Your task to perform on an android device: Open Android settings Image 0: 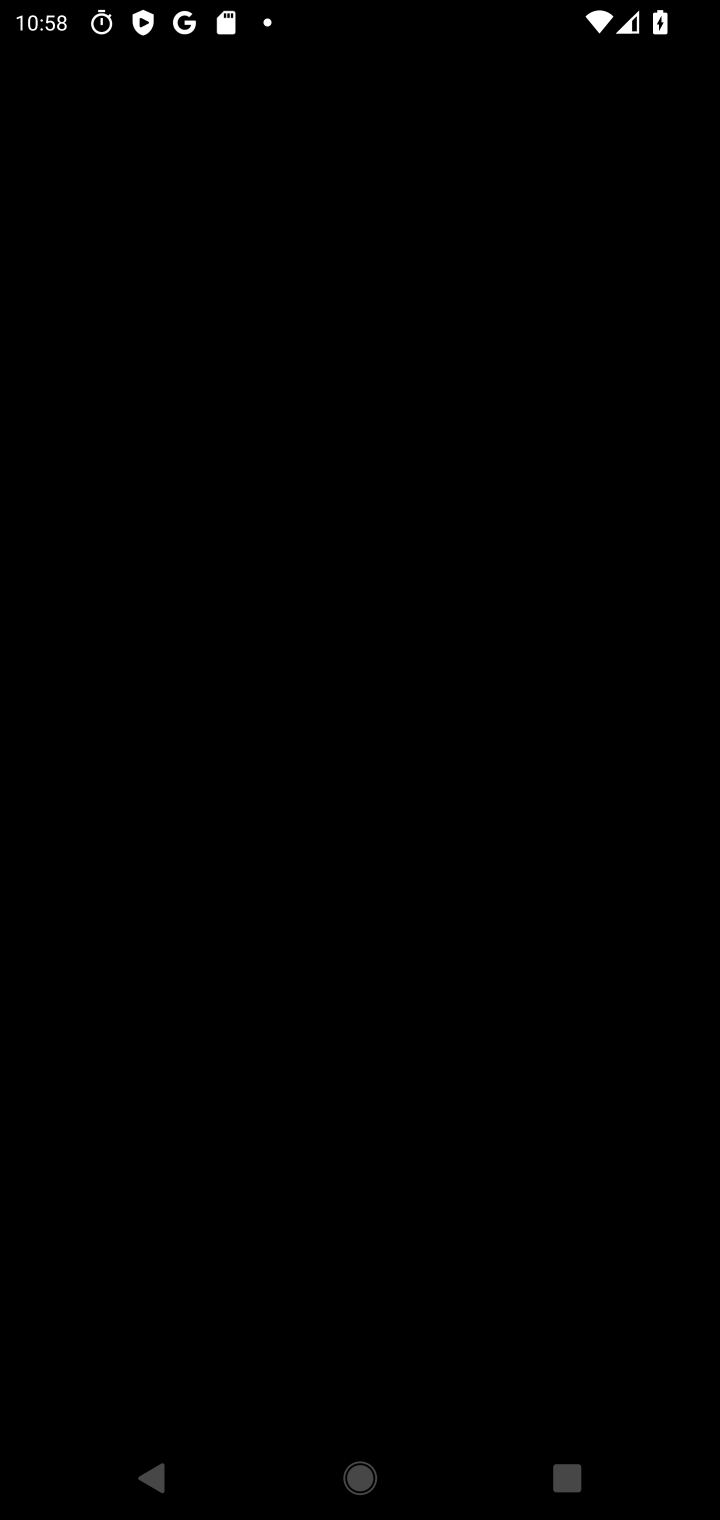
Step 0: press home button
Your task to perform on an android device: Open Android settings Image 1: 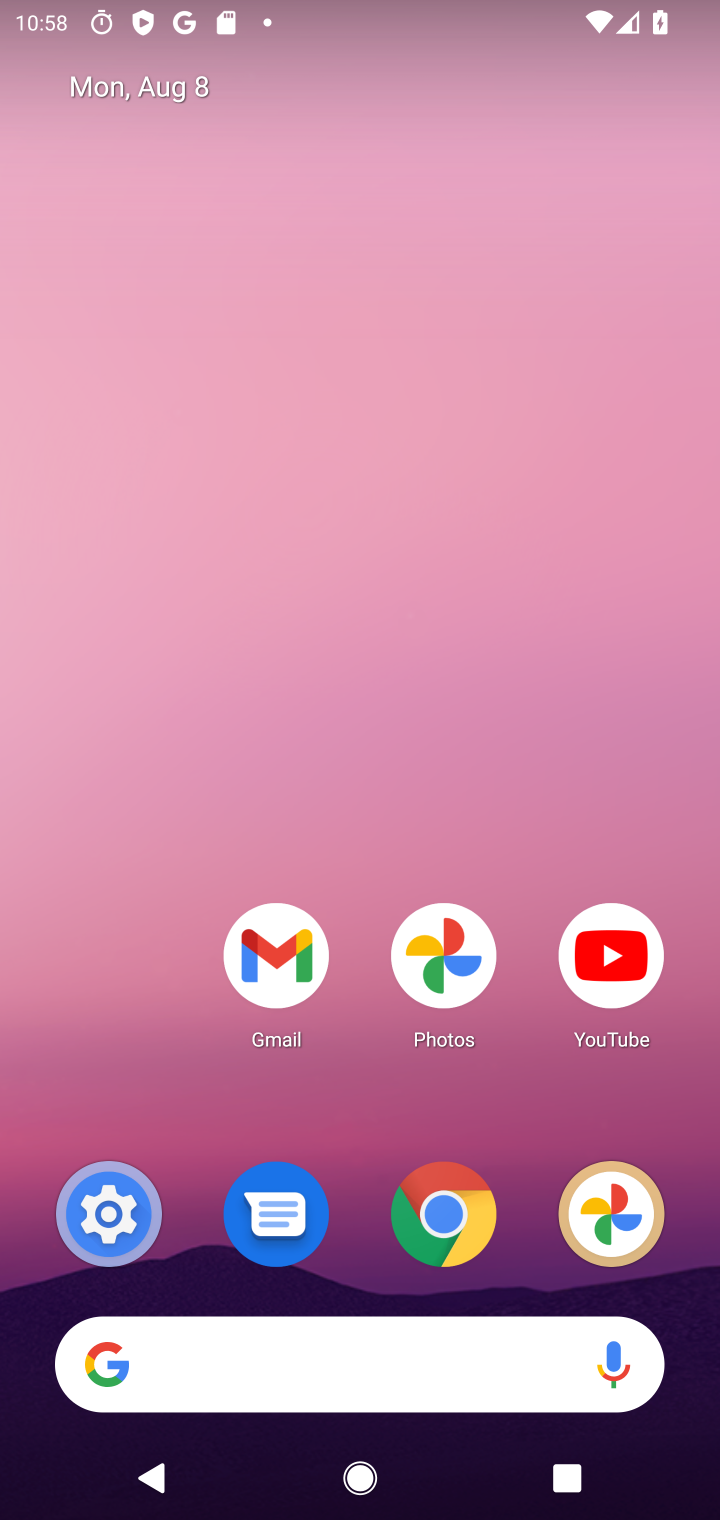
Step 1: click (106, 1172)
Your task to perform on an android device: Open Android settings Image 2: 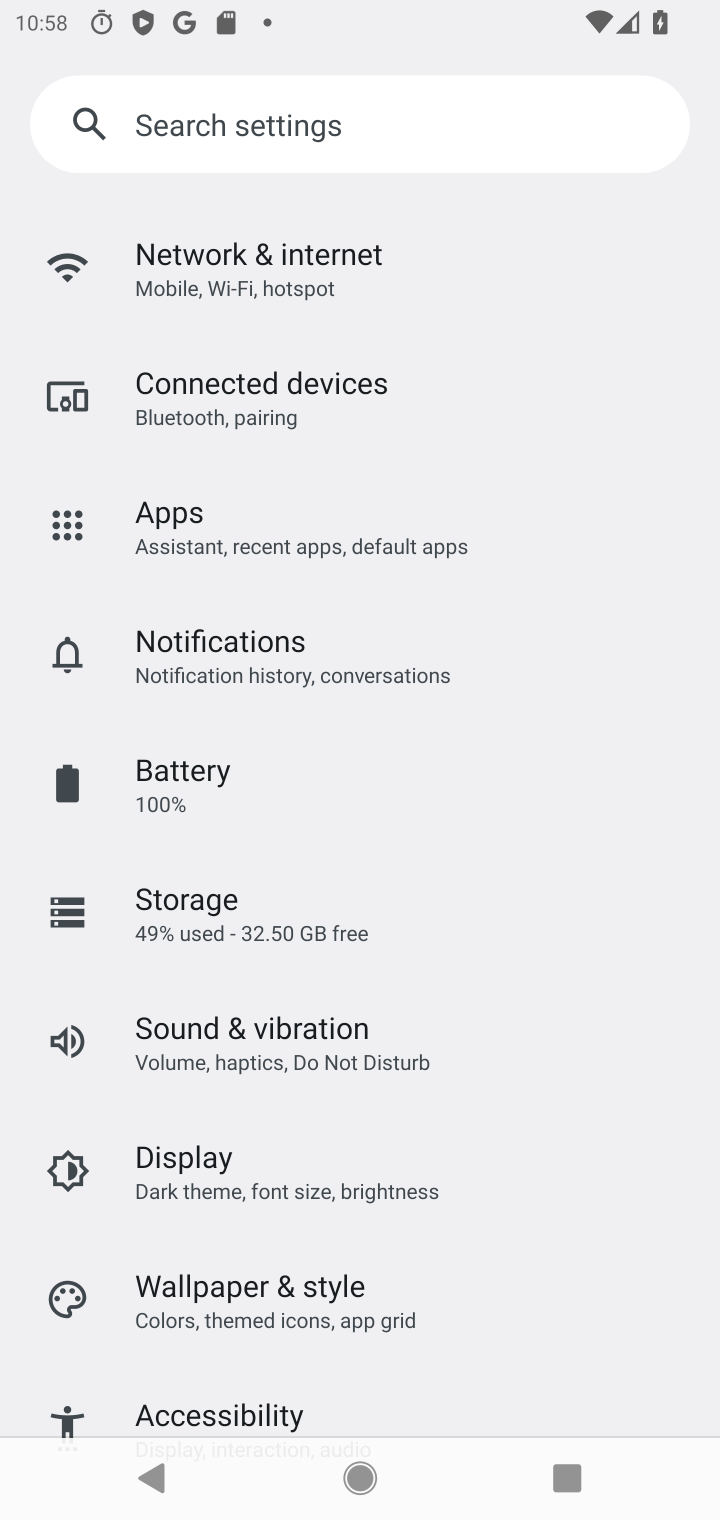
Step 2: drag from (527, 1377) to (446, 123)
Your task to perform on an android device: Open Android settings Image 3: 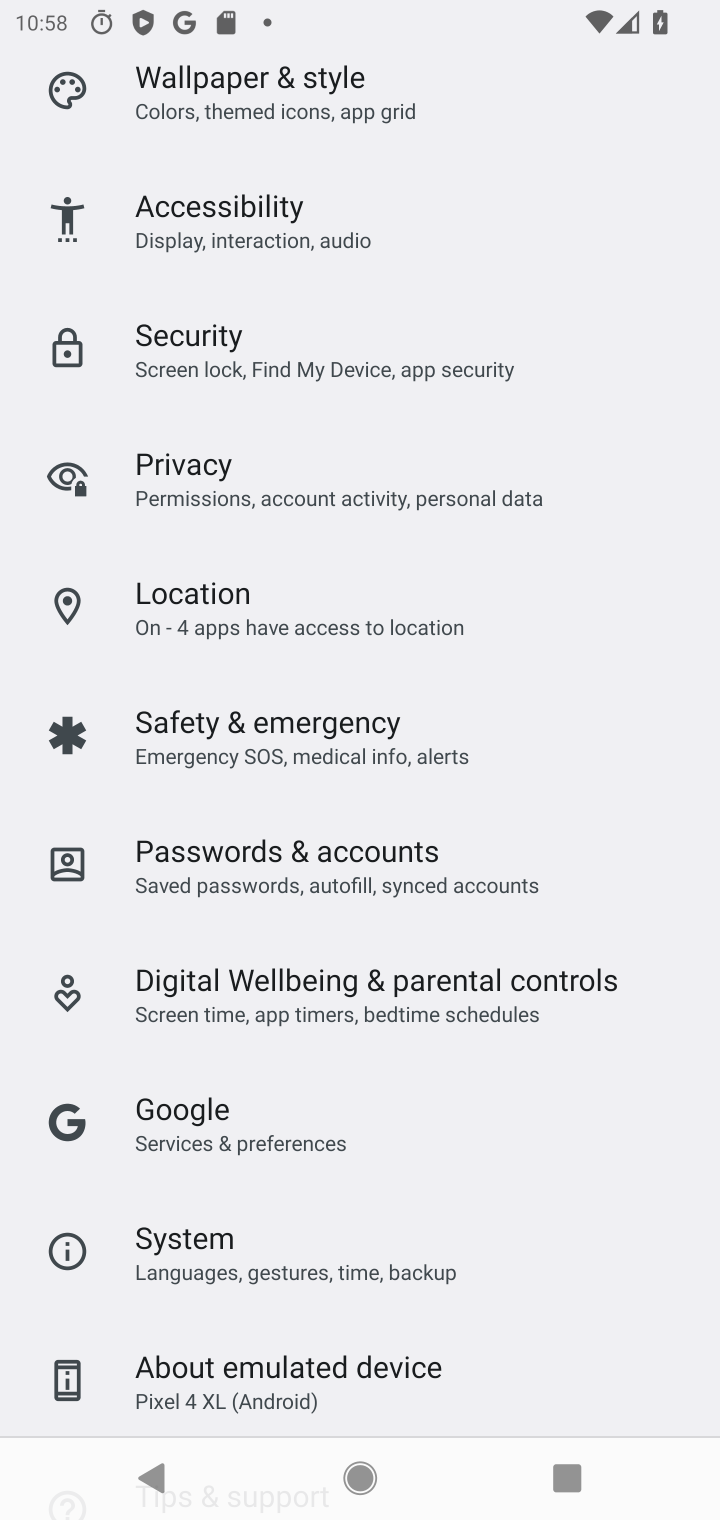
Step 3: click (278, 1392)
Your task to perform on an android device: Open Android settings Image 4: 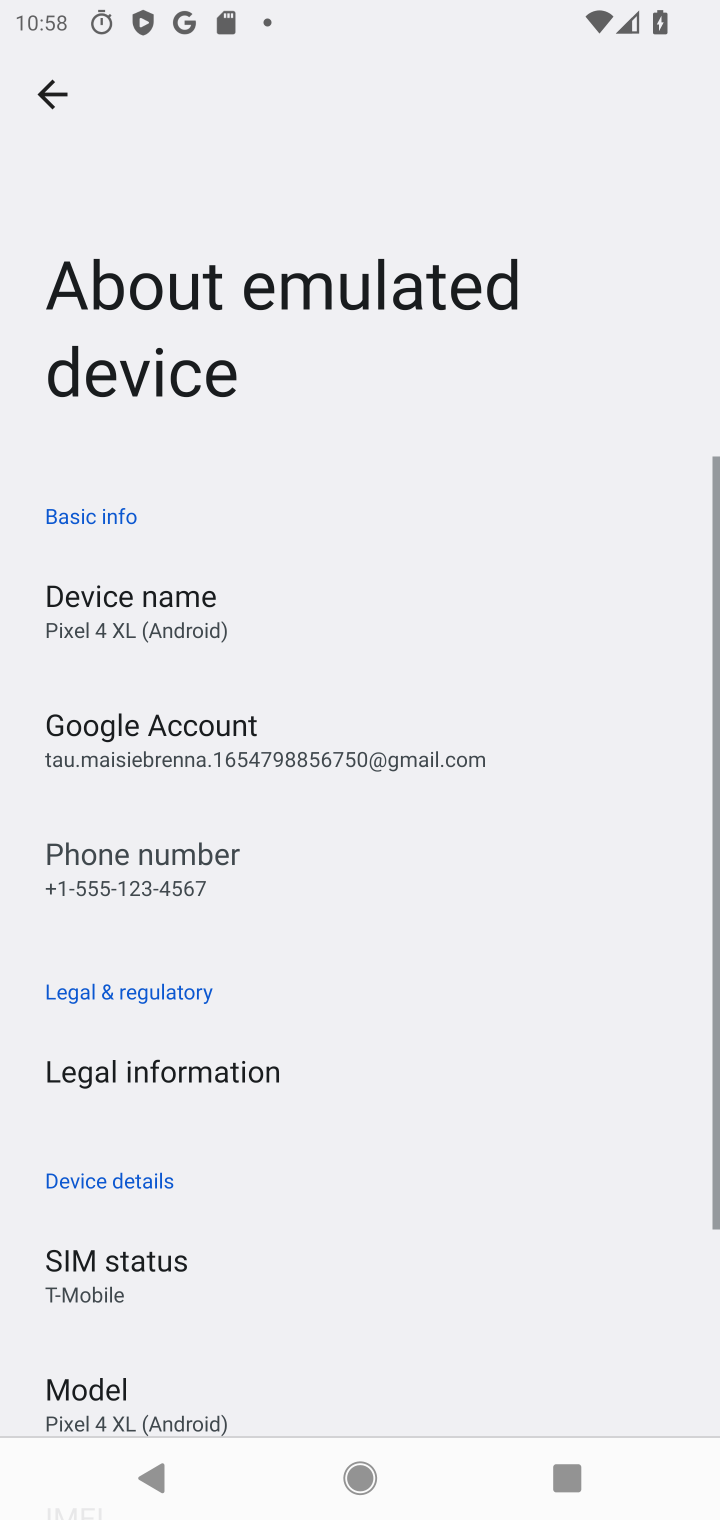
Step 4: drag from (558, 1351) to (581, 3)
Your task to perform on an android device: Open Android settings Image 5: 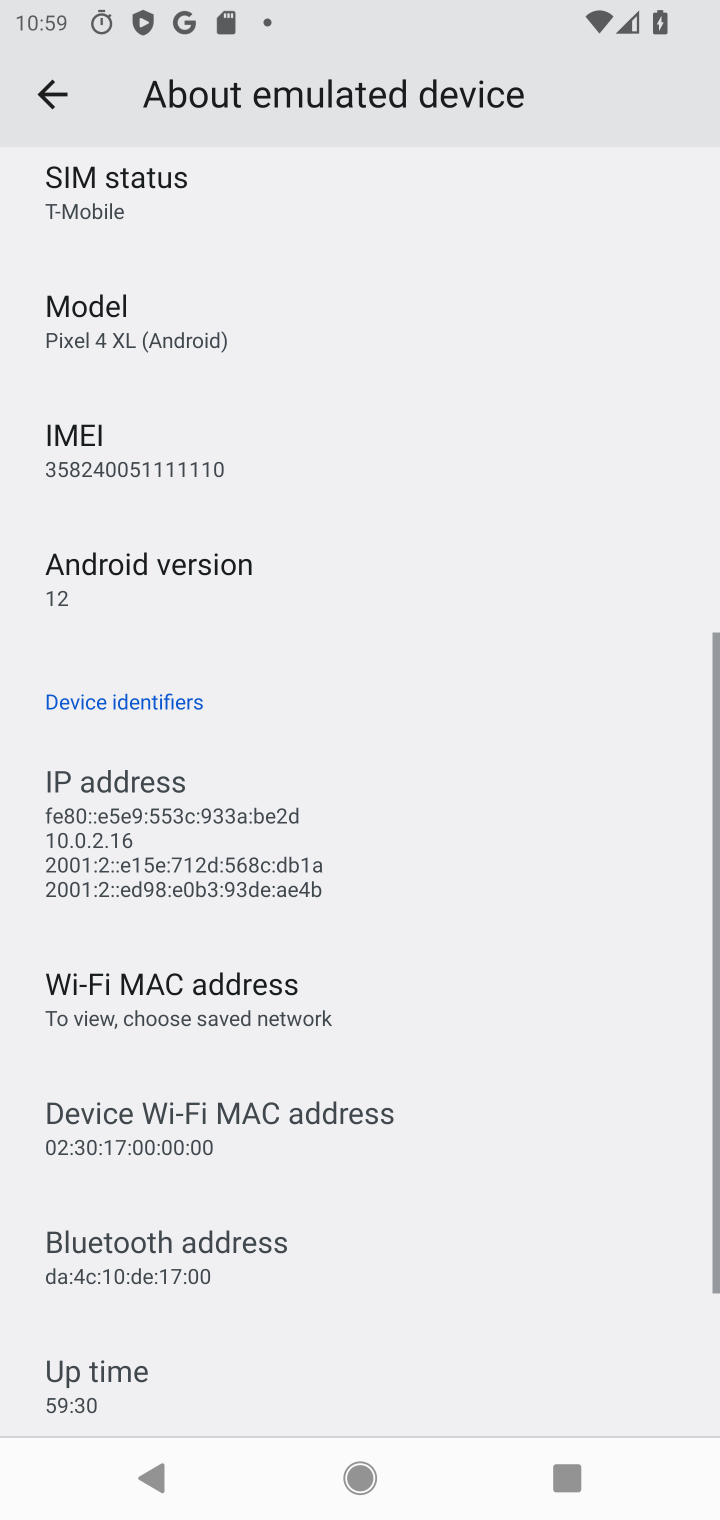
Step 5: click (89, 577)
Your task to perform on an android device: Open Android settings Image 6: 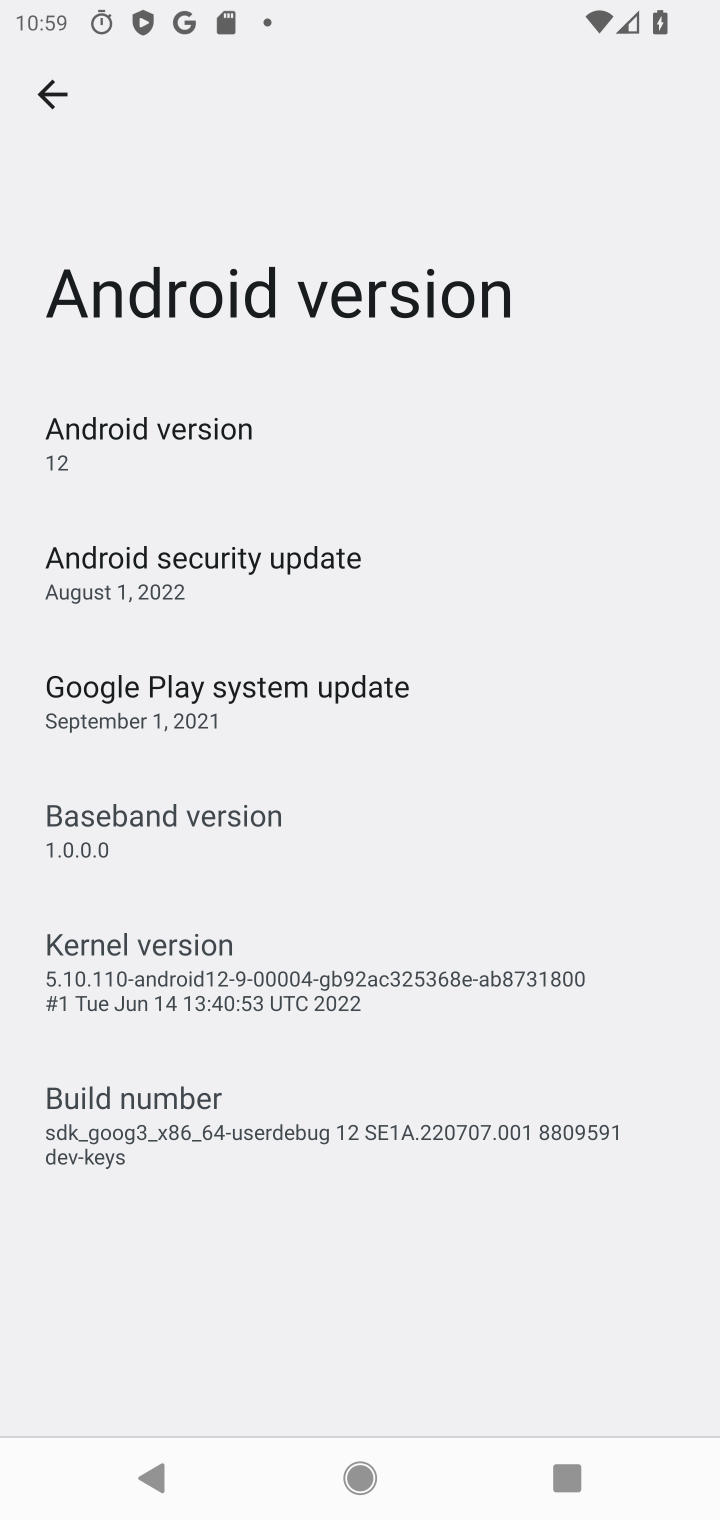
Step 6: task complete